Your task to perform on an android device: open app "Spotify" (install if not already installed) and go to login screen Image 0: 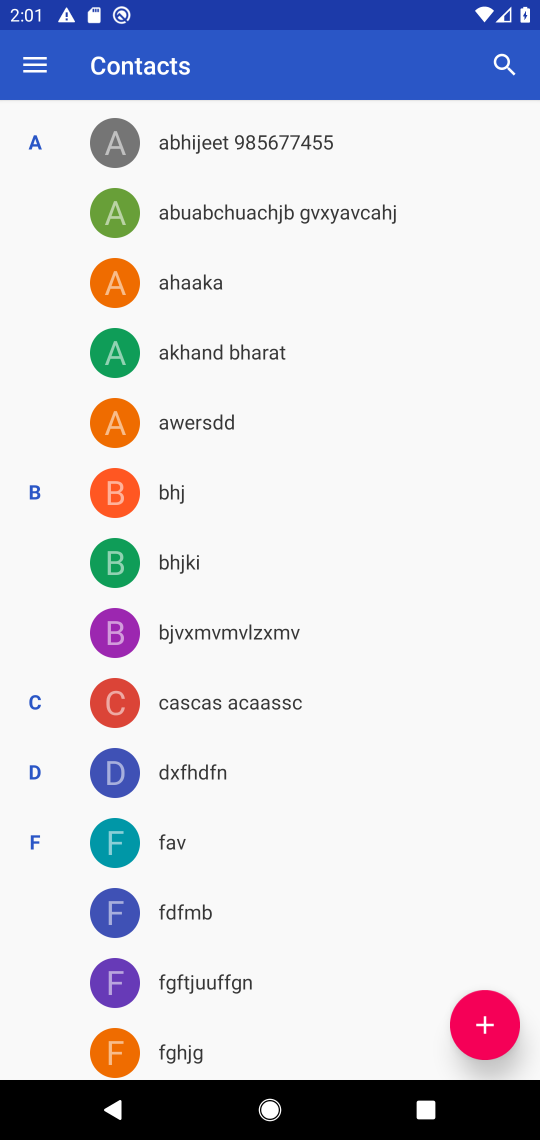
Step 0: press home button
Your task to perform on an android device: open app "Spotify" (install if not already installed) and go to login screen Image 1: 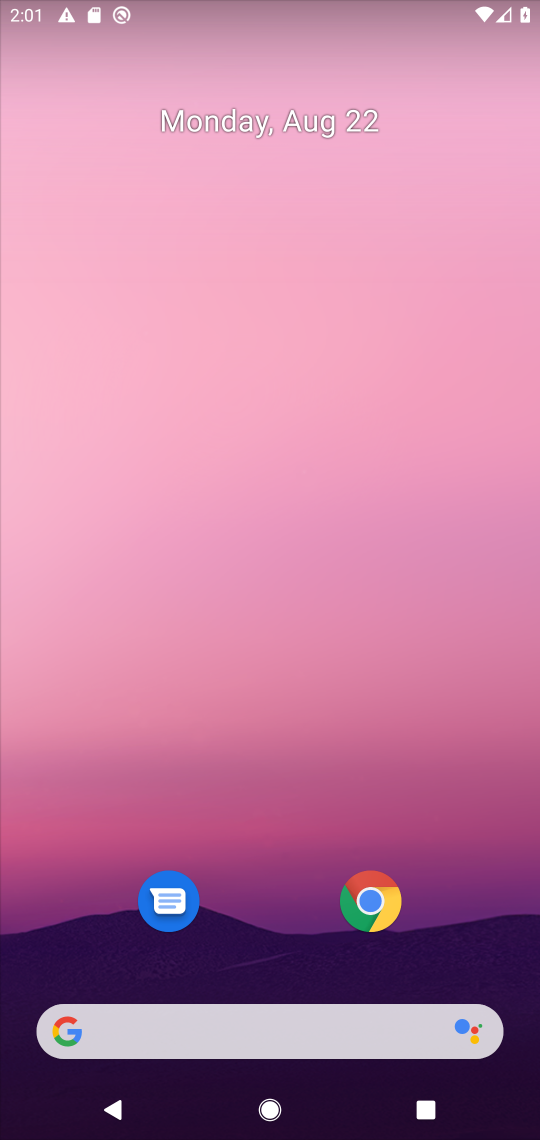
Step 1: drag from (505, 988) to (488, 294)
Your task to perform on an android device: open app "Spotify" (install if not already installed) and go to login screen Image 2: 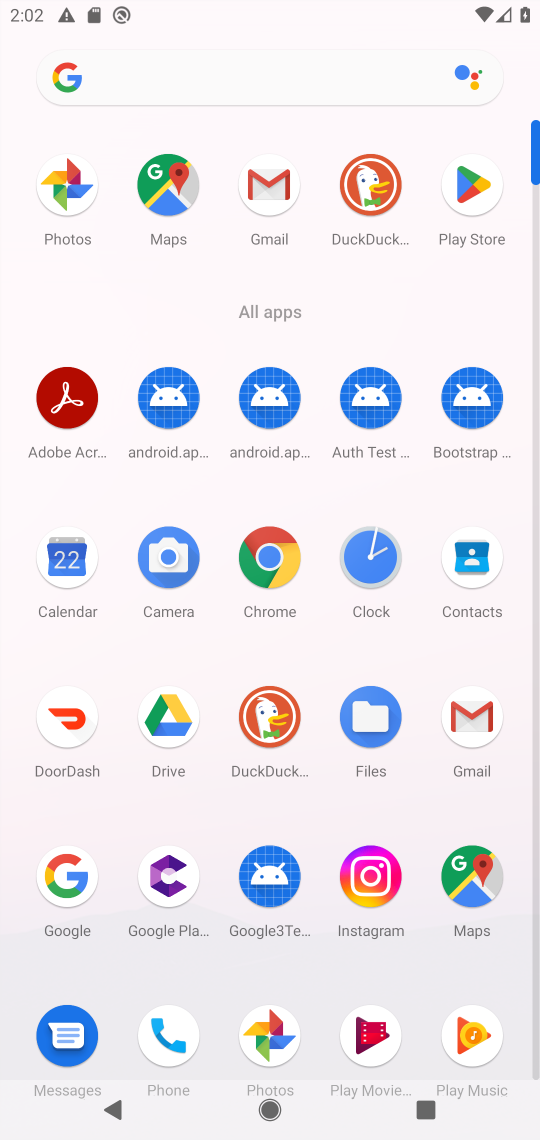
Step 2: drag from (317, 823) to (317, 366)
Your task to perform on an android device: open app "Spotify" (install if not already installed) and go to login screen Image 3: 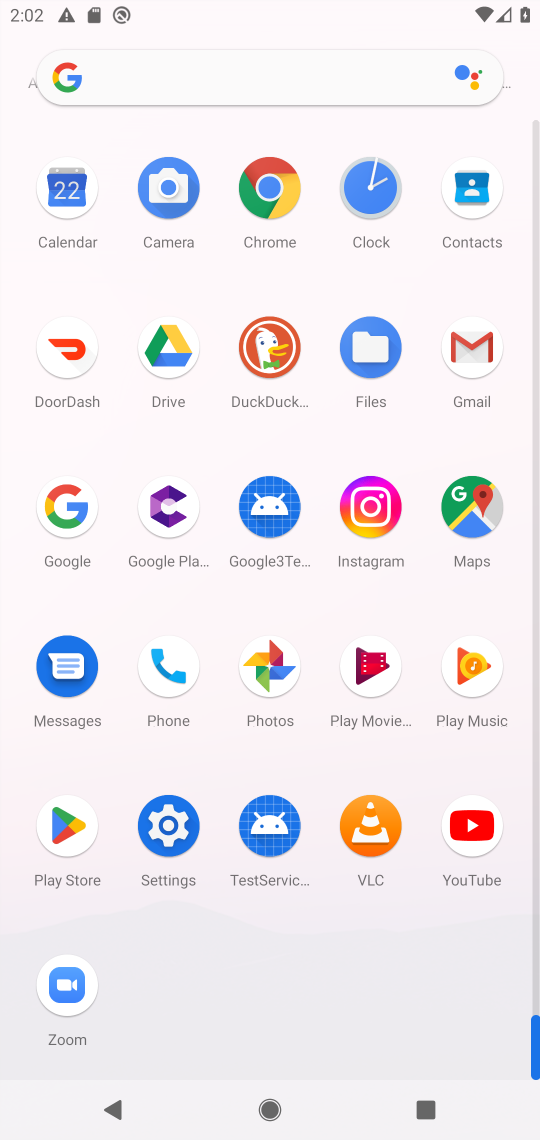
Step 3: click (71, 823)
Your task to perform on an android device: open app "Spotify" (install if not already installed) and go to login screen Image 4: 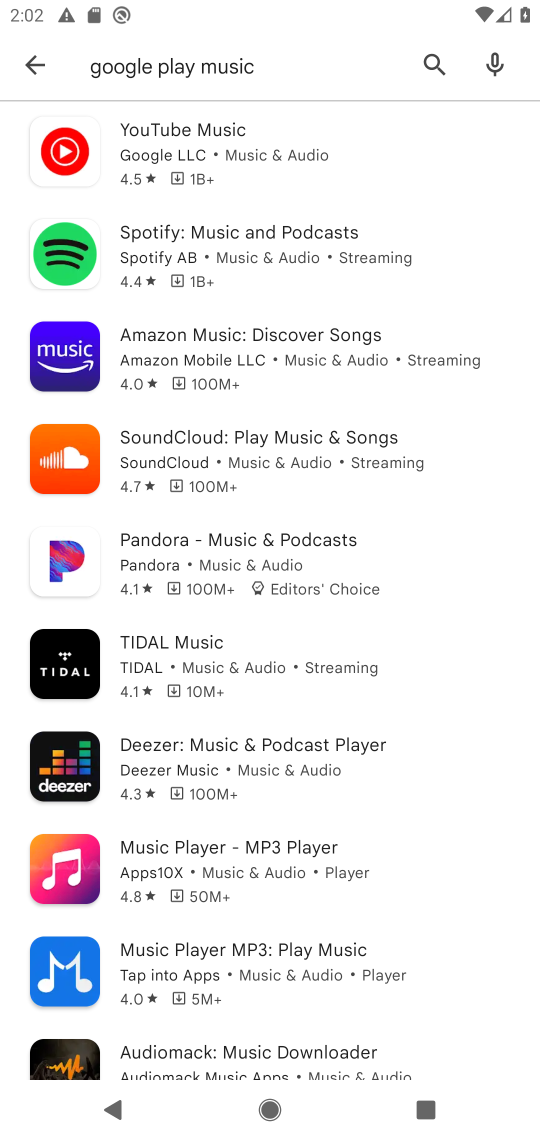
Step 4: click (438, 54)
Your task to perform on an android device: open app "Spotify" (install if not already installed) and go to login screen Image 5: 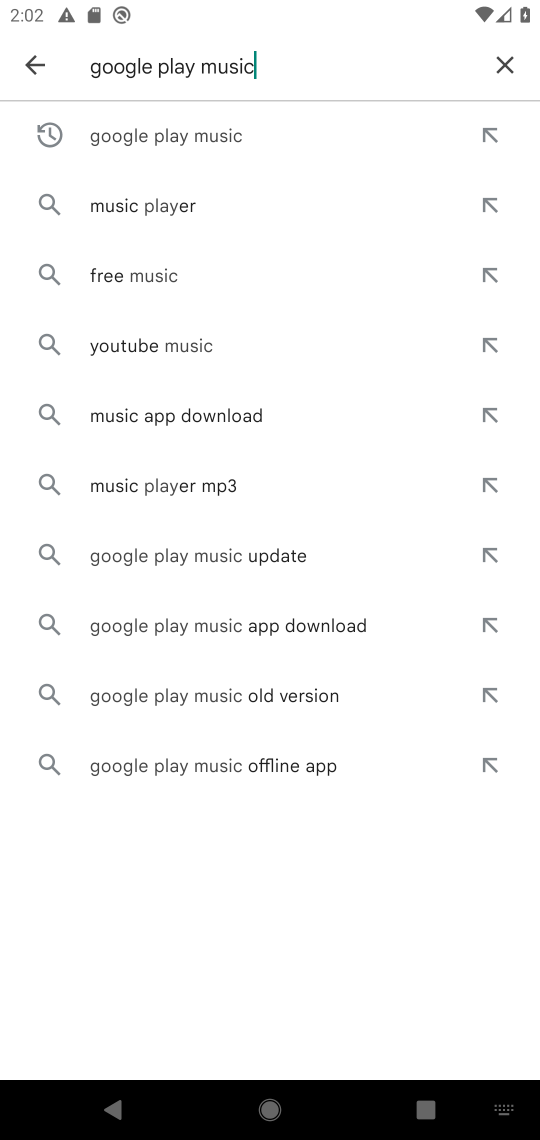
Step 5: click (499, 62)
Your task to perform on an android device: open app "Spotify" (install if not already installed) and go to login screen Image 6: 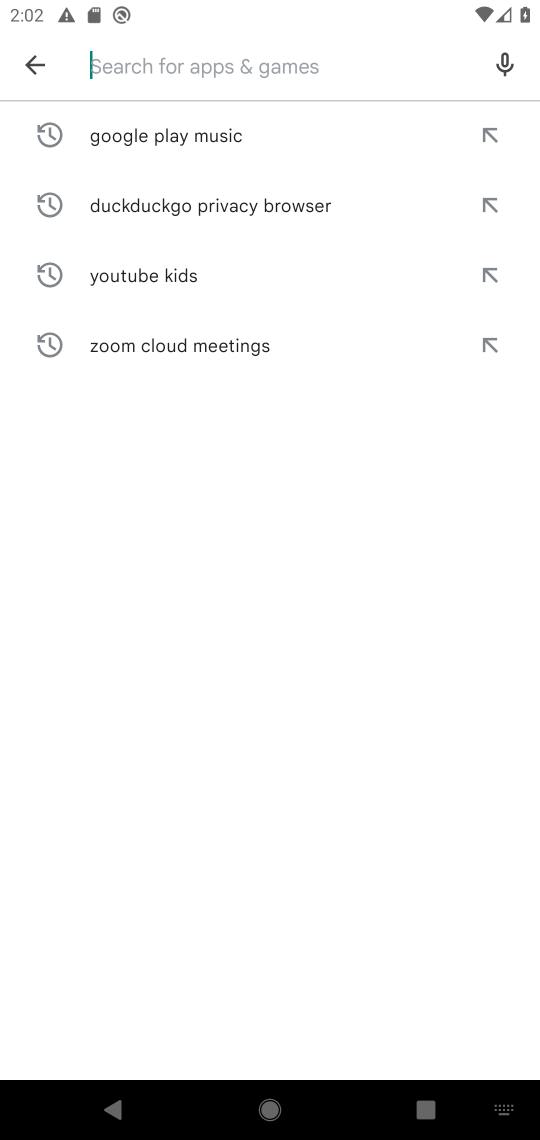
Step 6: type "Spotify"
Your task to perform on an android device: open app "Spotify" (install if not already installed) and go to login screen Image 7: 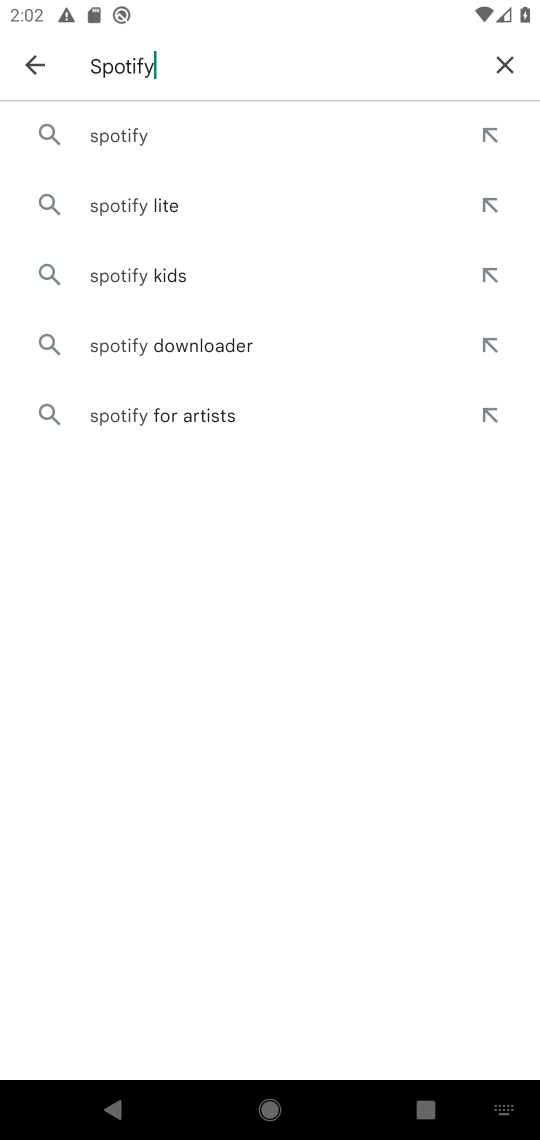
Step 7: click (134, 127)
Your task to perform on an android device: open app "Spotify" (install if not already installed) and go to login screen Image 8: 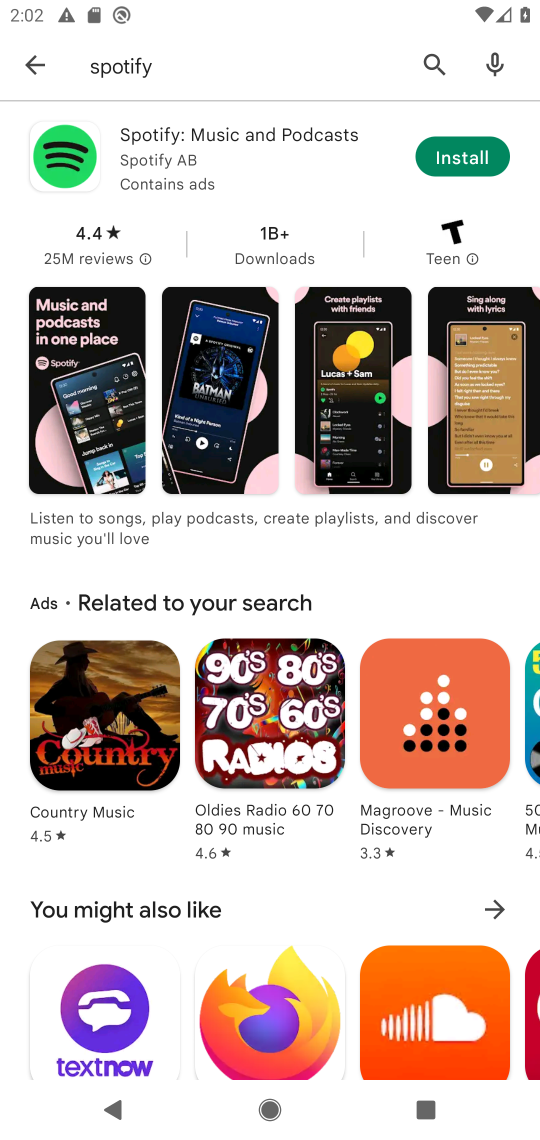
Step 8: click (218, 139)
Your task to perform on an android device: open app "Spotify" (install if not already installed) and go to login screen Image 9: 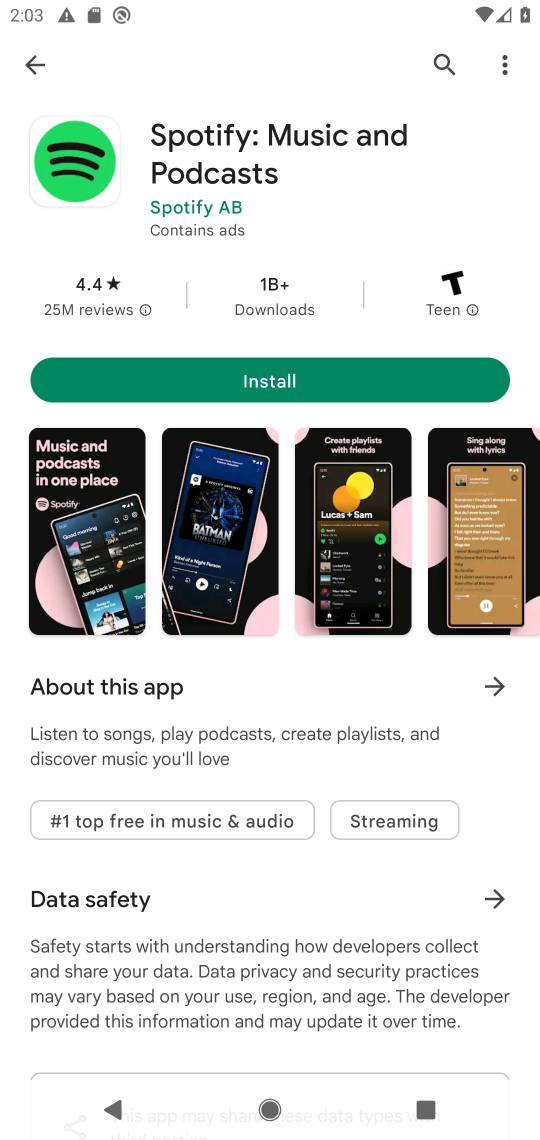
Step 9: click (274, 383)
Your task to perform on an android device: open app "Spotify" (install if not already installed) and go to login screen Image 10: 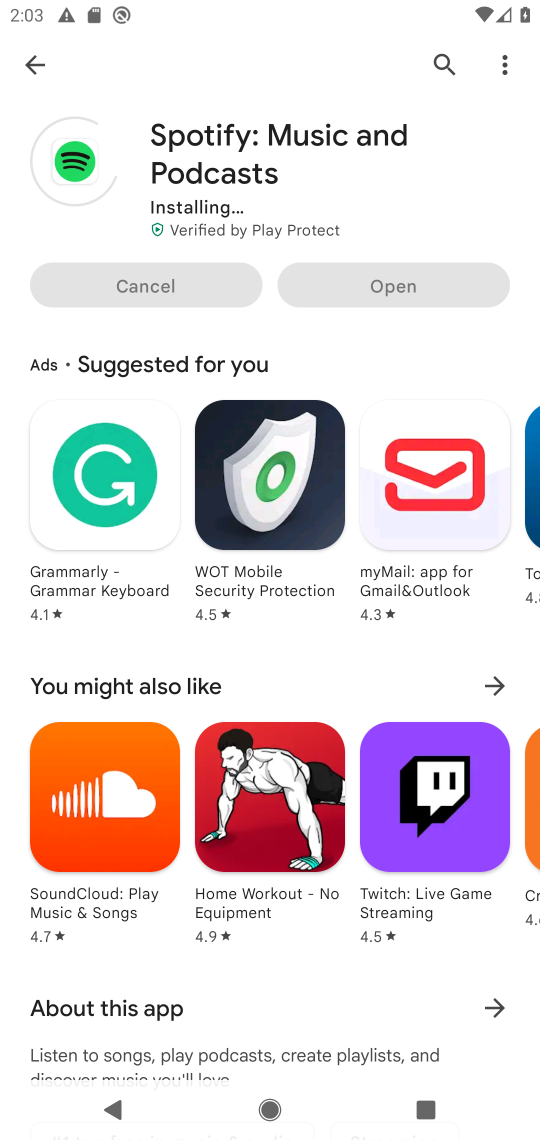
Step 10: click (276, 315)
Your task to perform on an android device: open app "Spotify" (install if not already installed) and go to login screen Image 11: 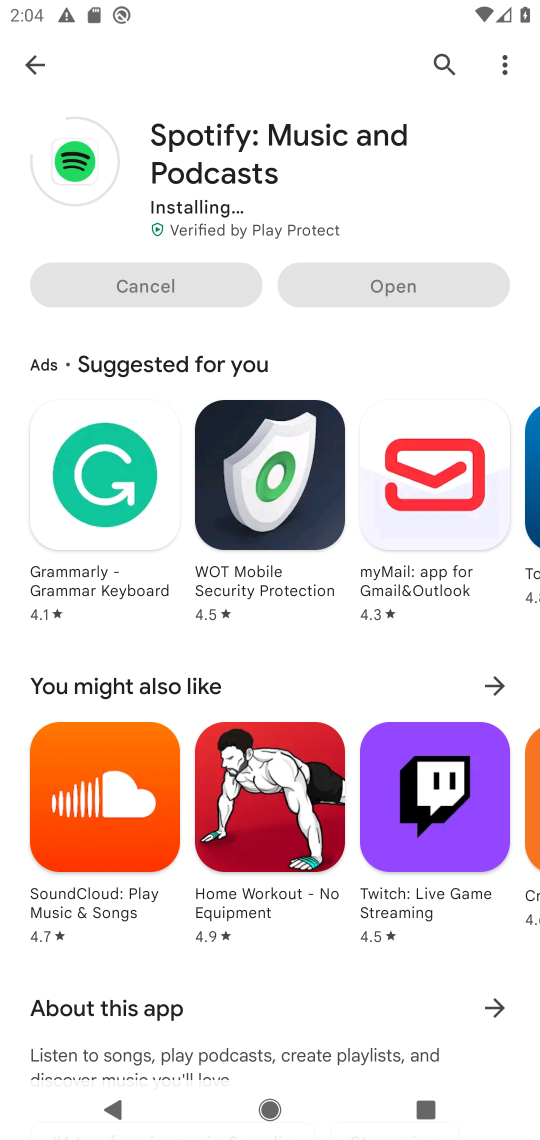
Step 11: drag from (256, 230) to (260, 359)
Your task to perform on an android device: open app "Spotify" (install if not already installed) and go to login screen Image 12: 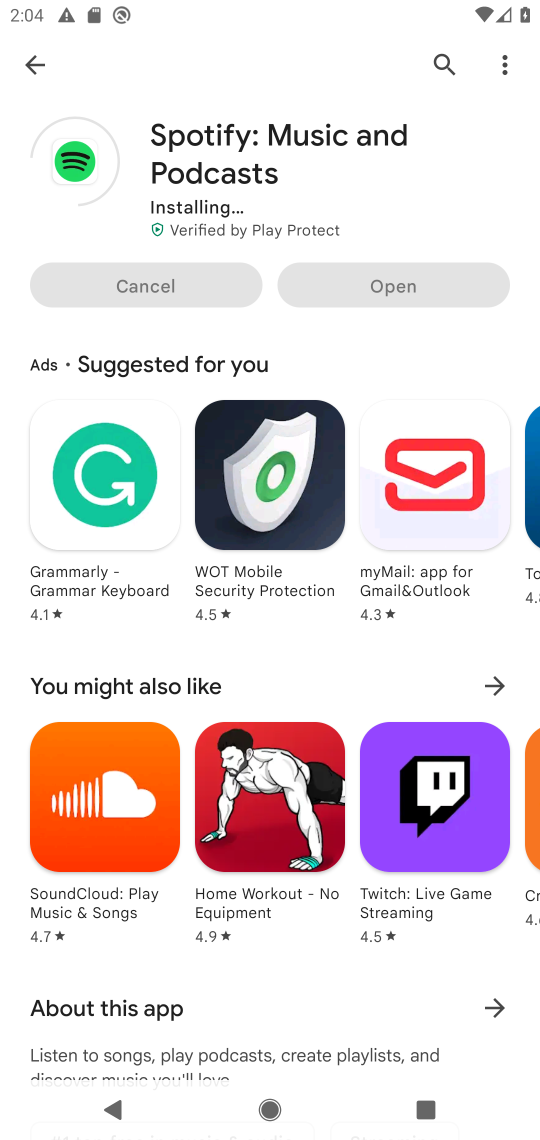
Step 12: drag from (268, 257) to (270, 374)
Your task to perform on an android device: open app "Spotify" (install if not already installed) and go to login screen Image 13: 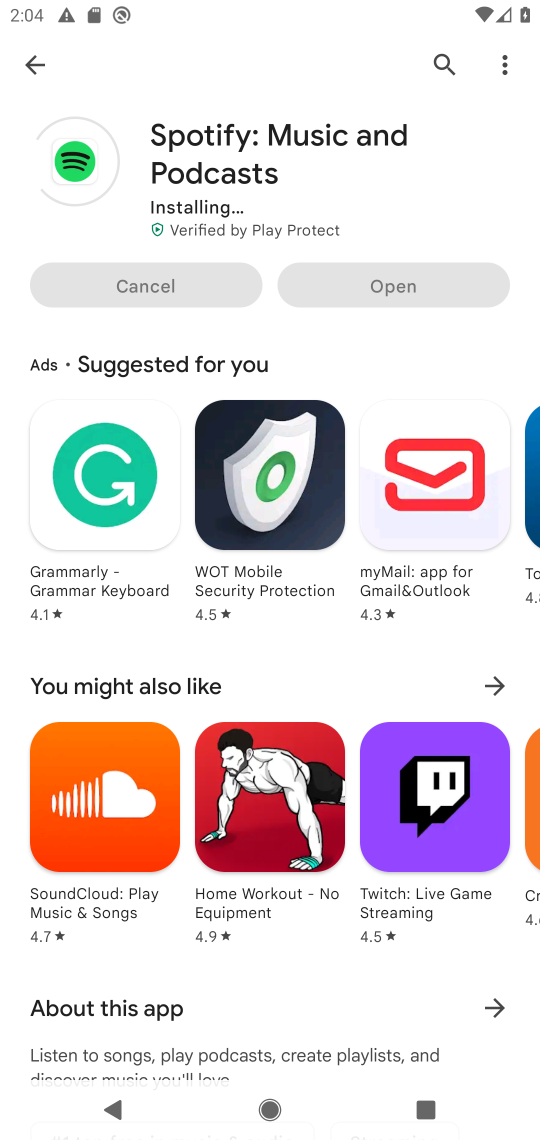
Step 13: drag from (270, 374) to (254, 104)
Your task to perform on an android device: open app "Spotify" (install if not already installed) and go to login screen Image 14: 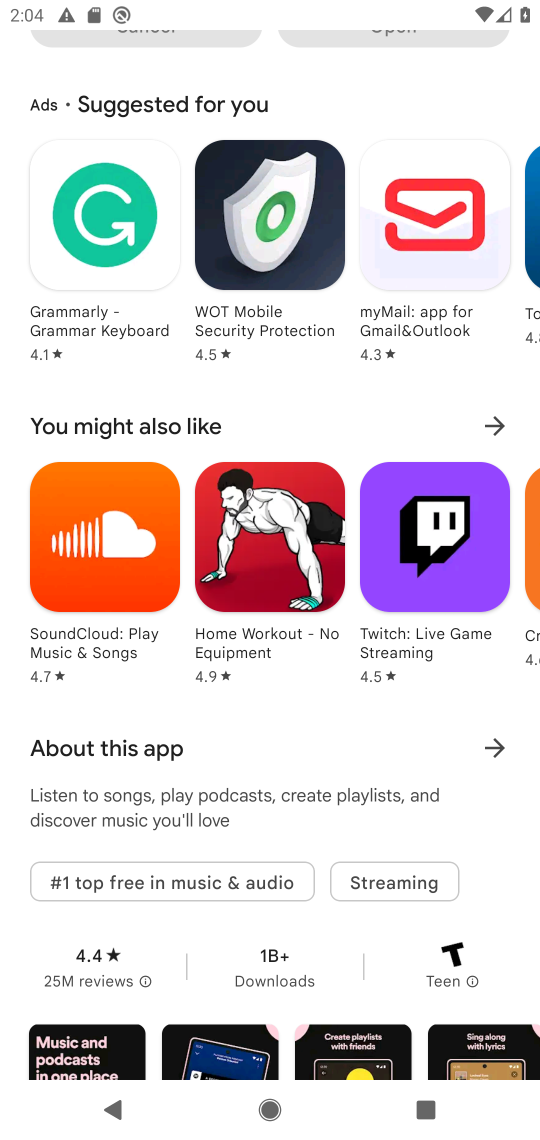
Step 14: drag from (253, 109) to (234, 454)
Your task to perform on an android device: open app "Spotify" (install if not already installed) and go to login screen Image 15: 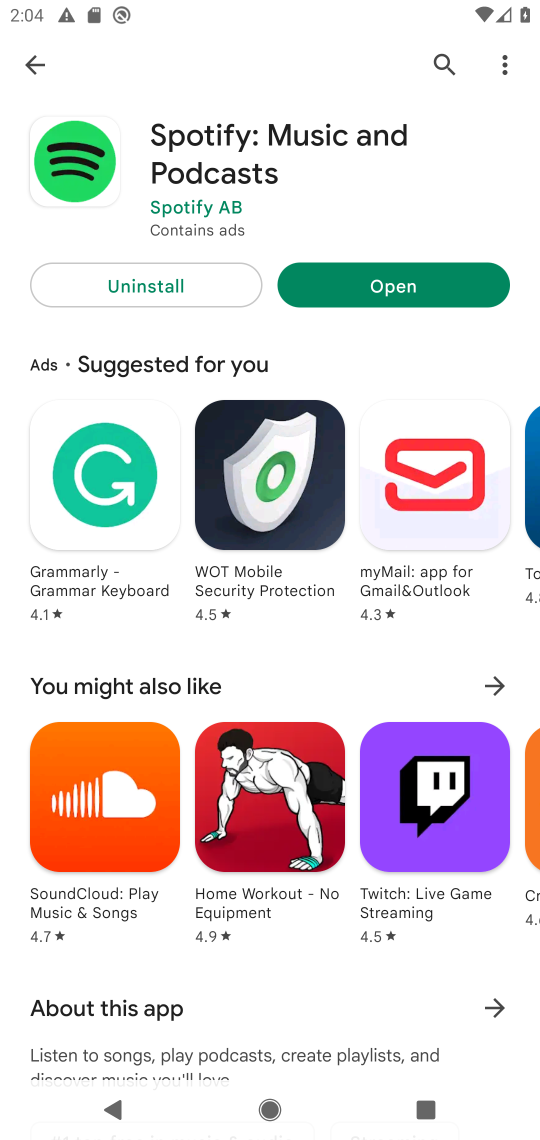
Step 15: click (403, 283)
Your task to perform on an android device: open app "Spotify" (install if not already installed) and go to login screen Image 16: 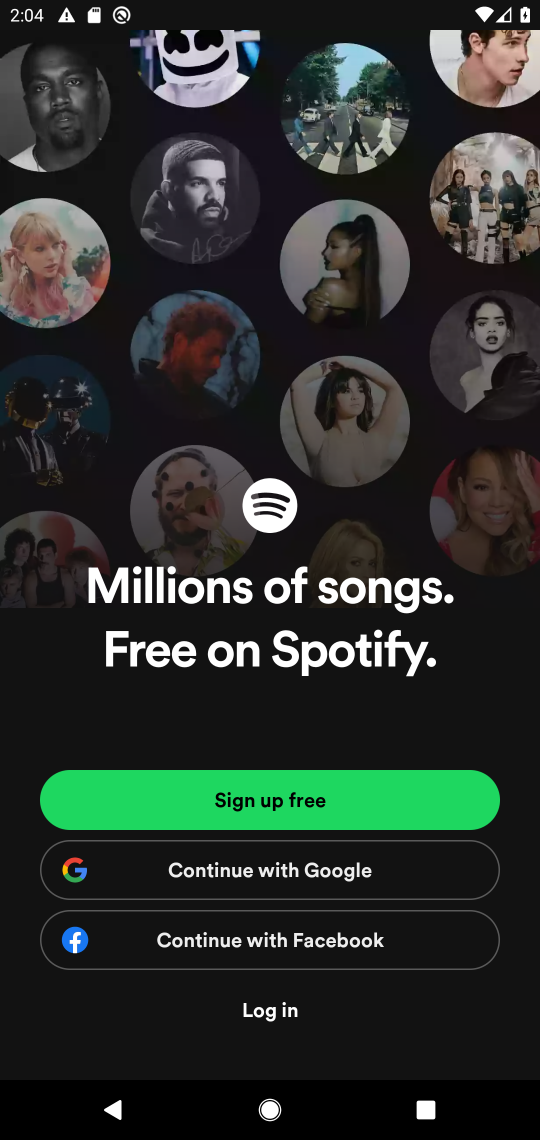
Step 16: click (249, 1005)
Your task to perform on an android device: open app "Spotify" (install if not already installed) and go to login screen Image 17: 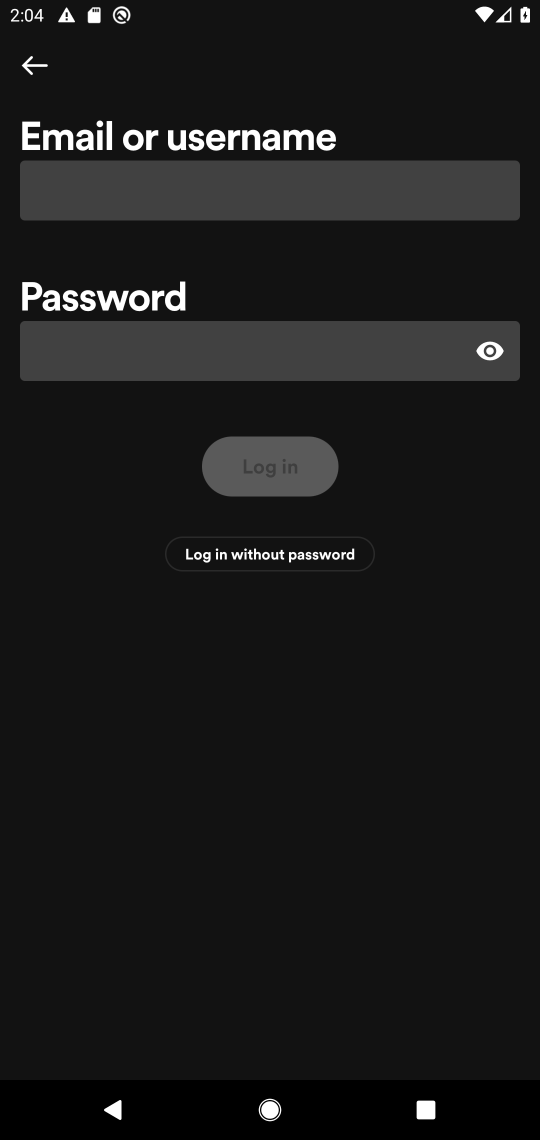
Step 17: task complete